Your task to perform on an android device: change the clock style Image 0: 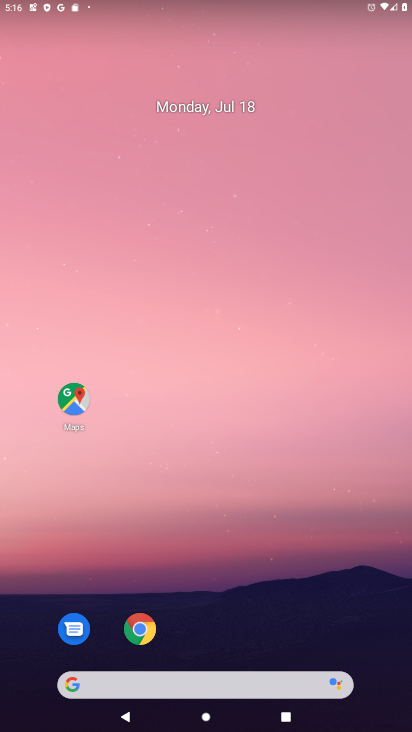
Step 0: drag from (252, 591) to (250, 43)
Your task to perform on an android device: change the clock style Image 1: 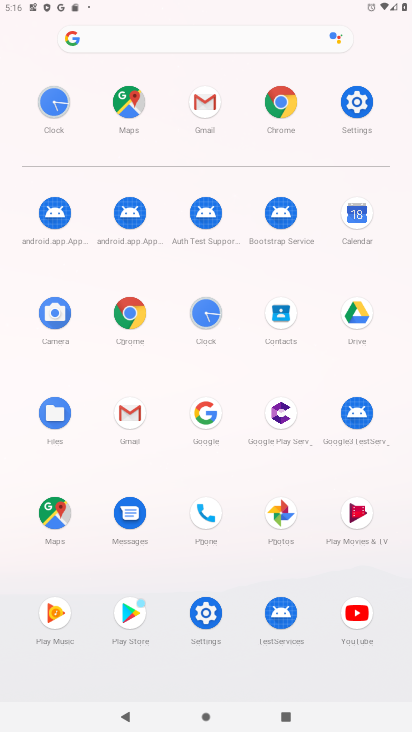
Step 1: click (201, 318)
Your task to perform on an android device: change the clock style Image 2: 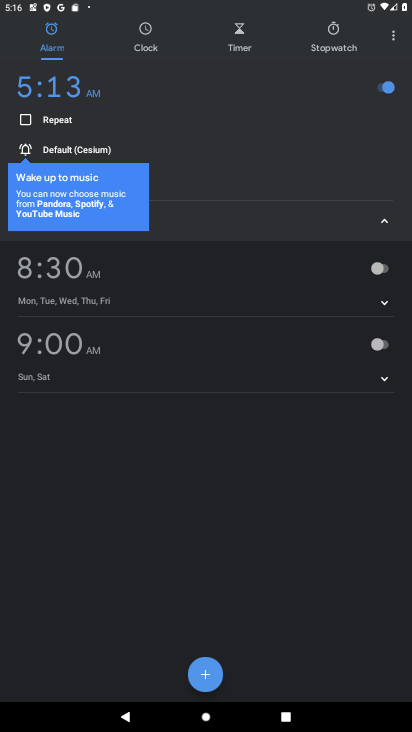
Step 2: click (397, 35)
Your task to perform on an android device: change the clock style Image 3: 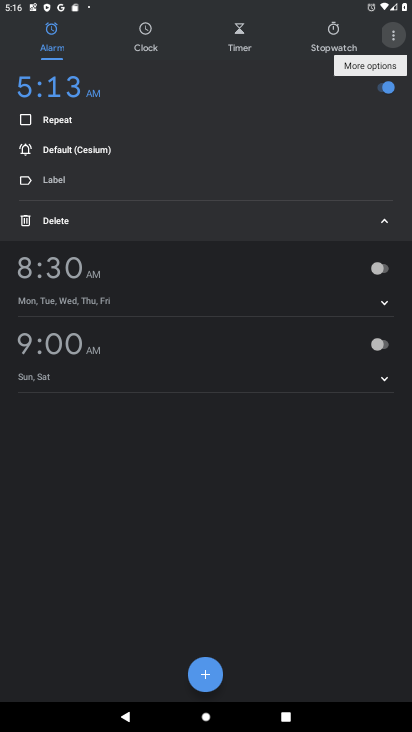
Step 3: click (397, 35)
Your task to perform on an android device: change the clock style Image 4: 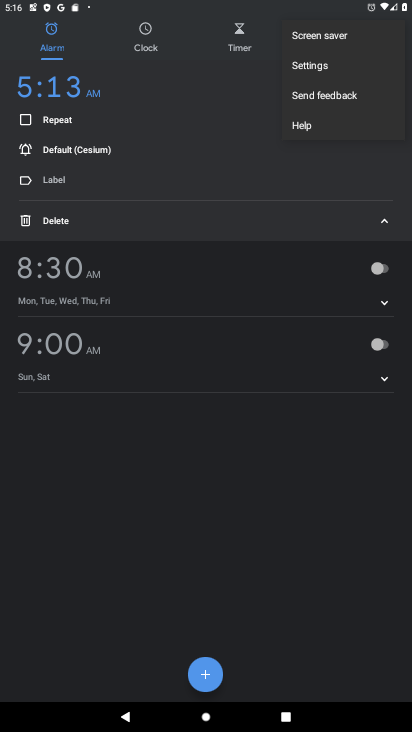
Step 4: click (316, 55)
Your task to perform on an android device: change the clock style Image 5: 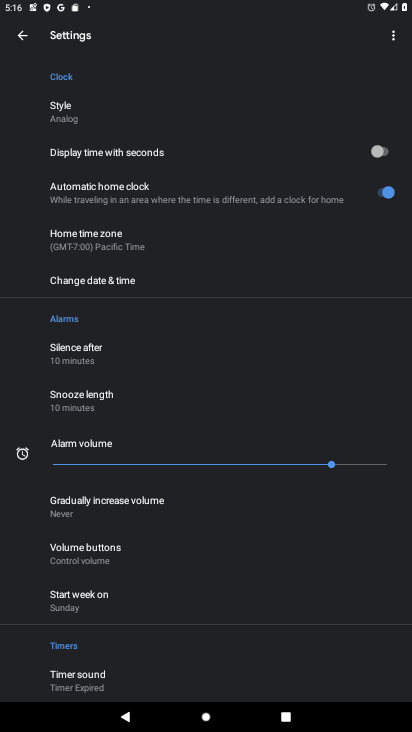
Step 5: click (86, 114)
Your task to perform on an android device: change the clock style Image 6: 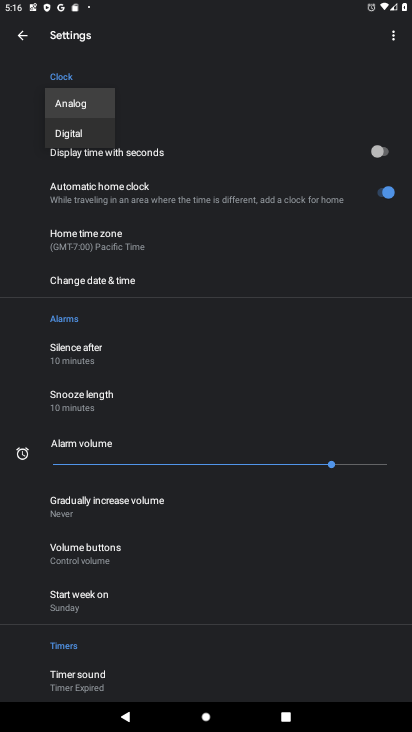
Step 6: click (80, 131)
Your task to perform on an android device: change the clock style Image 7: 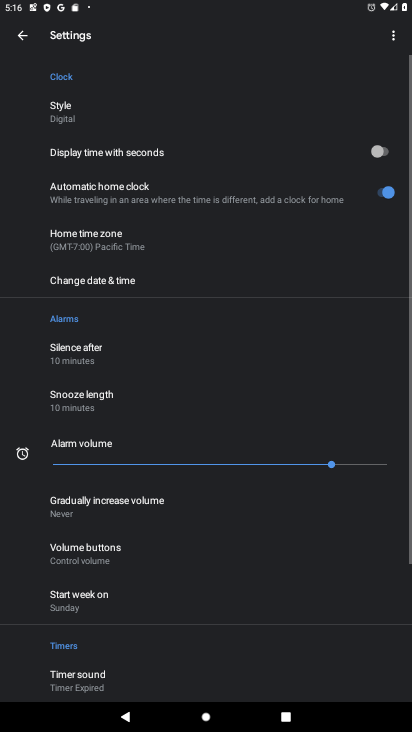
Step 7: task complete